Your task to perform on an android device: Empty the shopping cart on costco. Search for "bose quietcomfort 35" on costco, select the first entry, and add it to the cart. Image 0: 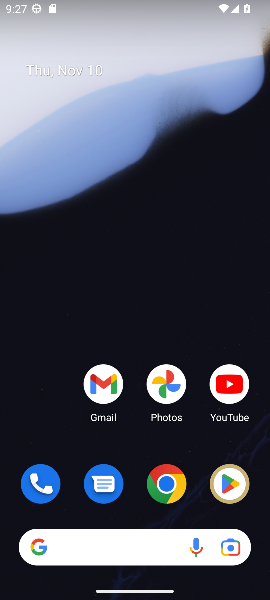
Step 0: click (160, 492)
Your task to perform on an android device: Empty the shopping cart on costco. Search for "bose quietcomfort 35" on costco, select the first entry, and add it to the cart. Image 1: 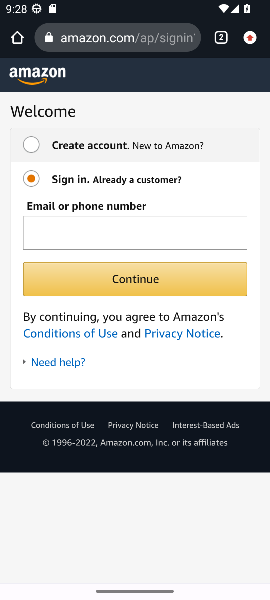
Step 1: click (94, 39)
Your task to perform on an android device: Empty the shopping cart on costco. Search for "bose quietcomfort 35" on costco, select the first entry, and add it to the cart. Image 2: 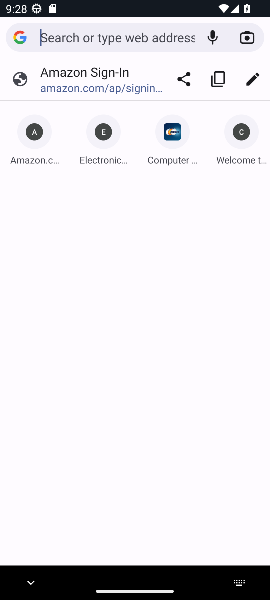
Step 2: type "costco.com"
Your task to perform on an android device: Empty the shopping cart on costco. Search for "bose quietcomfort 35" on costco, select the first entry, and add it to the cart. Image 3: 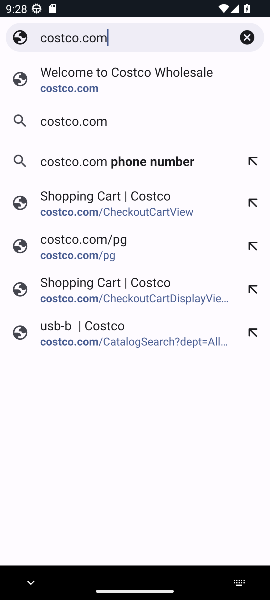
Step 3: click (71, 86)
Your task to perform on an android device: Empty the shopping cart on costco. Search for "bose quietcomfort 35" on costco, select the first entry, and add it to the cart. Image 4: 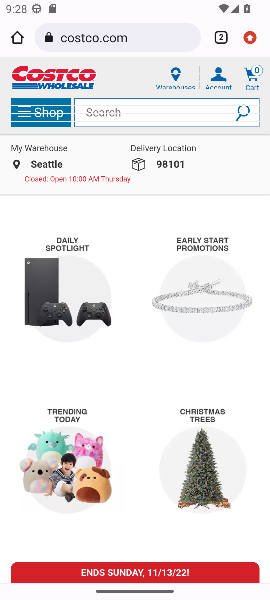
Step 4: click (257, 75)
Your task to perform on an android device: Empty the shopping cart on costco. Search for "bose quietcomfort 35" on costco, select the first entry, and add it to the cart. Image 5: 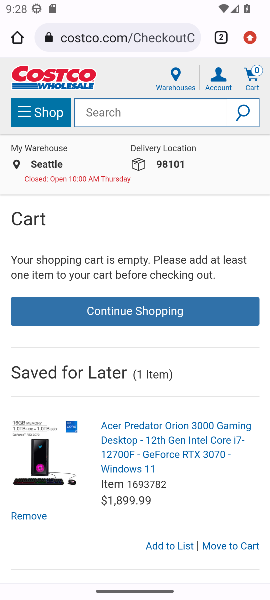
Step 5: click (154, 121)
Your task to perform on an android device: Empty the shopping cart on costco. Search for "bose quietcomfort 35" on costco, select the first entry, and add it to the cart. Image 6: 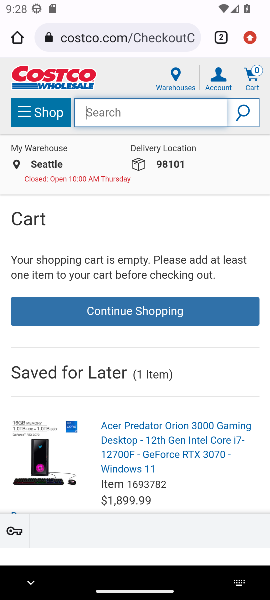
Step 6: type "bose quietcomfort 35"
Your task to perform on an android device: Empty the shopping cart on costco. Search for "bose quietcomfort 35" on costco, select the first entry, and add it to the cart. Image 7: 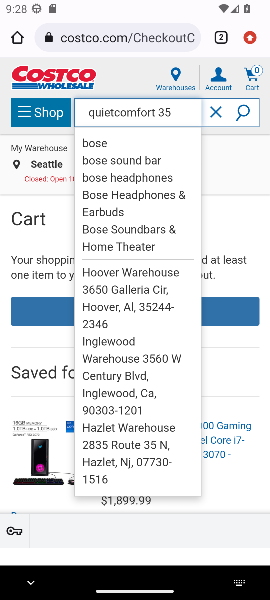
Step 7: click (245, 115)
Your task to perform on an android device: Empty the shopping cart on costco. Search for "bose quietcomfort 35" on costco, select the first entry, and add it to the cart. Image 8: 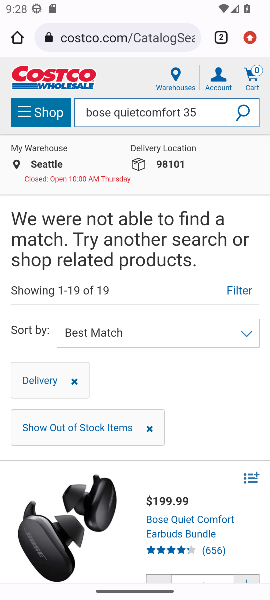
Step 8: task complete